Your task to perform on an android device: open chrome and create a bookmark for the current page Image 0: 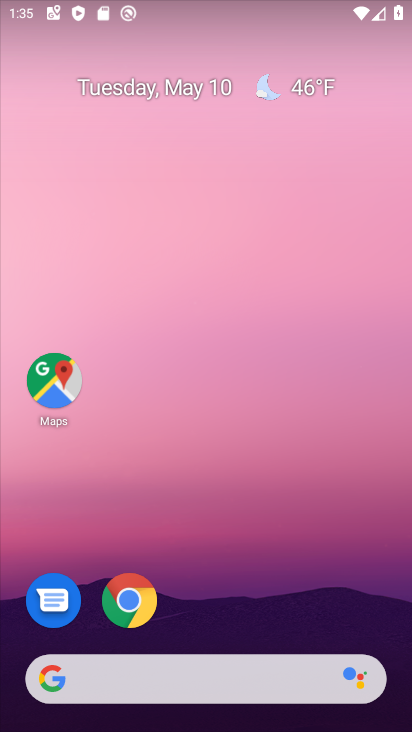
Step 0: press home button
Your task to perform on an android device: open chrome and create a bookmark for the current page Image 1: 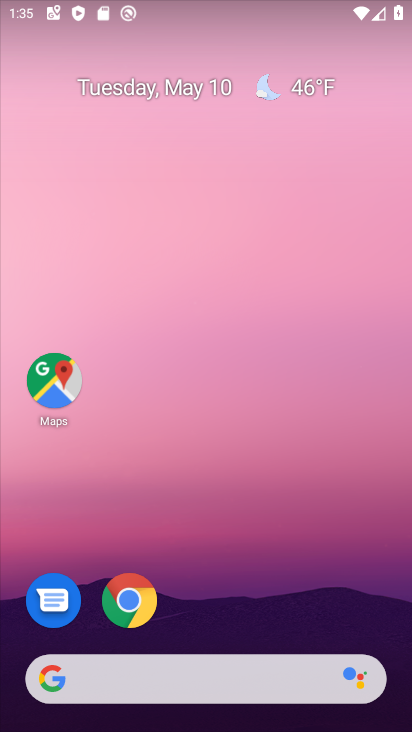
Step 1: click (135, 612)
Your task to perform on an android device: open chrome and create a bookmark for the current page Image 2: 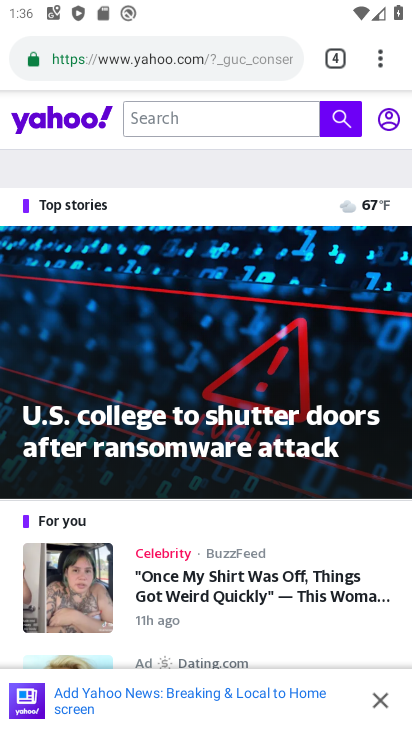
Step 2: click (375, 75)
Your task to perform on an android device: open chrome and create a bookmark for the current page Image 3: 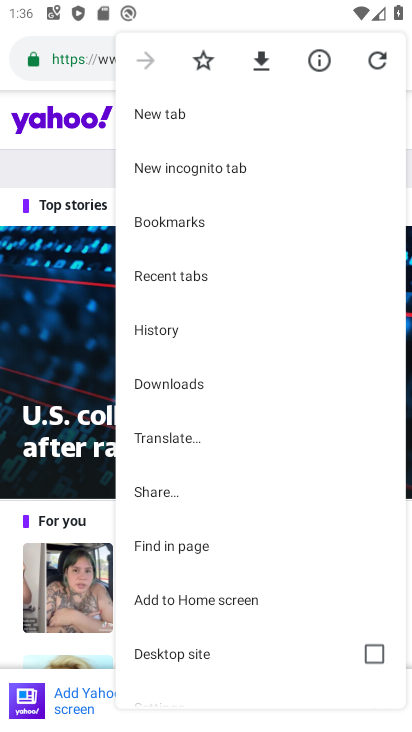
Step 3: click (204, 60)
Your task to perform on an android device: open chrome and create a bookmark for the current page Image 4: 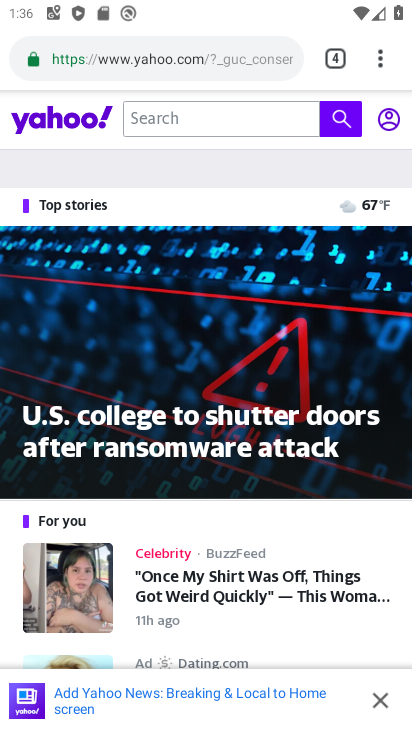
Step 4: task complete